Your task to perform on an android device: change notification settings in the gmail app Image 0: 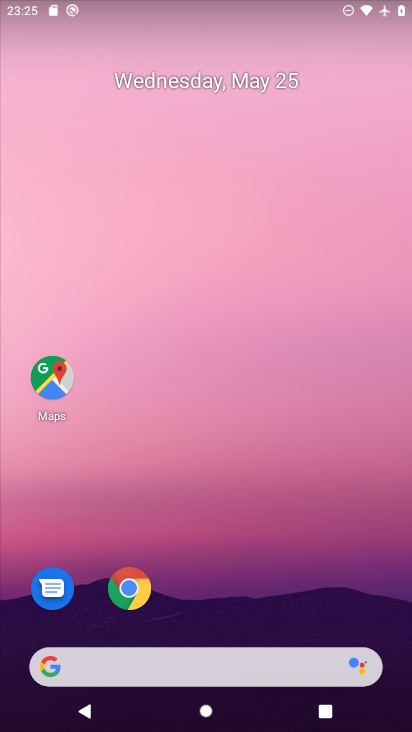
Step 0: drag from (281, 530) to (261, 52)
Your task to perform on an android device: change notification settings in the gmail app Image 1: 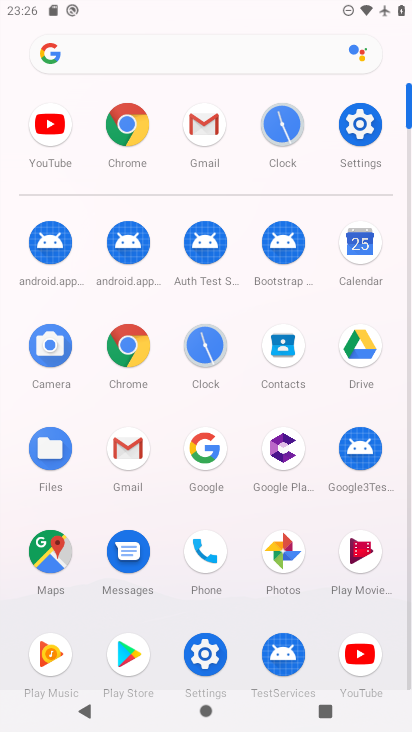
Step 1: click (203, 125)
Your task to perform on an android device: change notification settings in the gmail app Image 2: 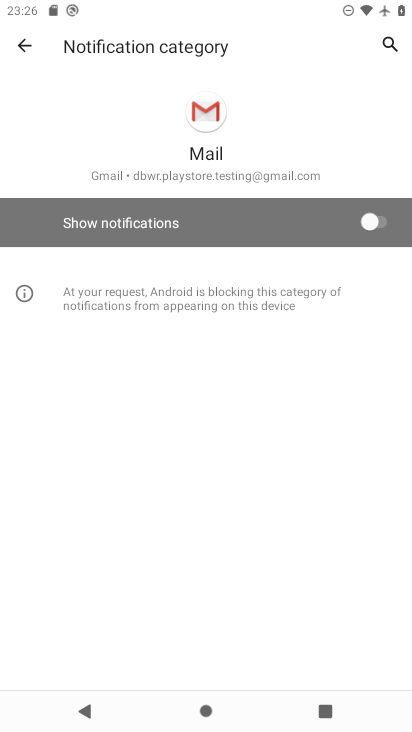
Step 2: click (383, 218)
Your task to perform on an android device: change notification settings in the gmail app Image 3: 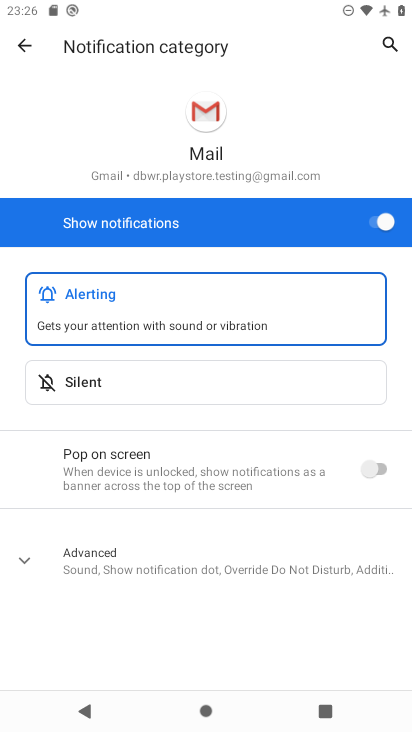
Step 3: task complete